Your task to perform on an android device: open app "ZOOM Cloud Meetings" (install if not already installed) Image 0: 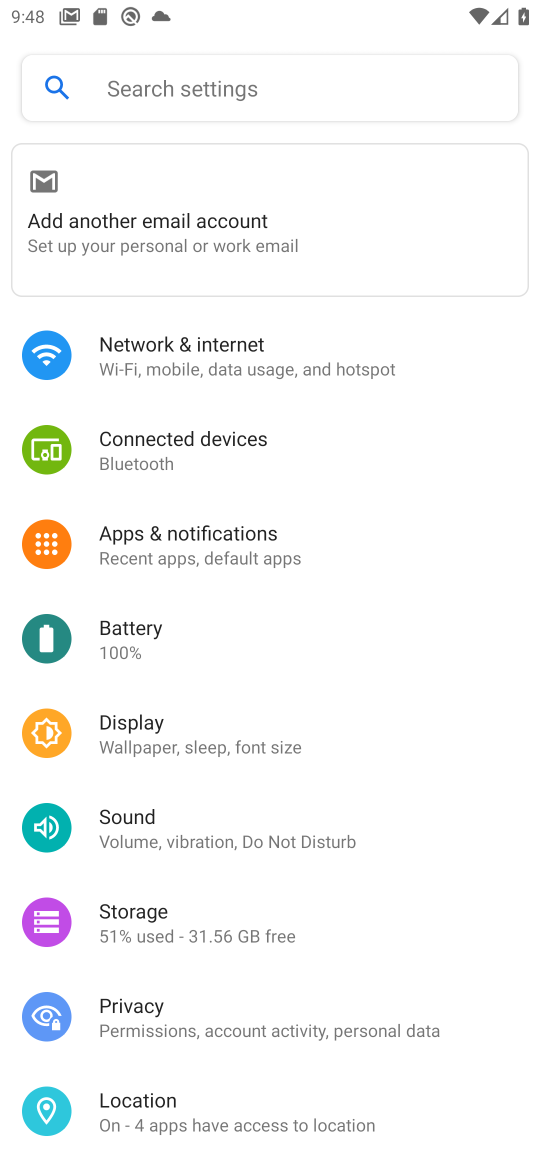
Step 0: press home button
Your task to perform on an android device: open app "ZOOM Cloud Meetings" (install if not already installed) Image 1: 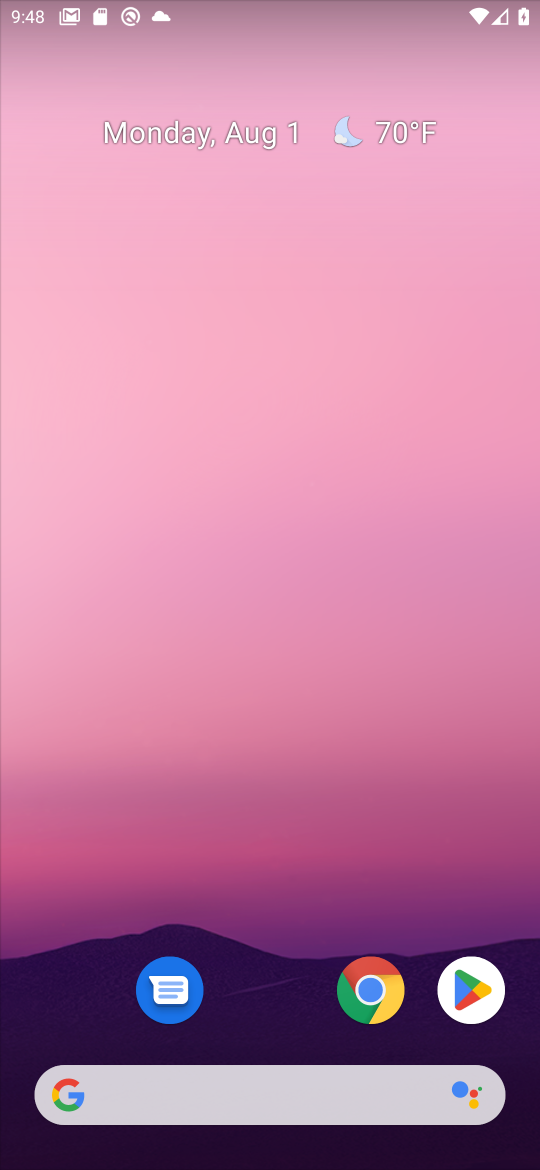
Step 1: click (477, 996)
Your task to perform on an android device: open app "ZOOM Cloud Meetings" (install if not already installed) Image 2: 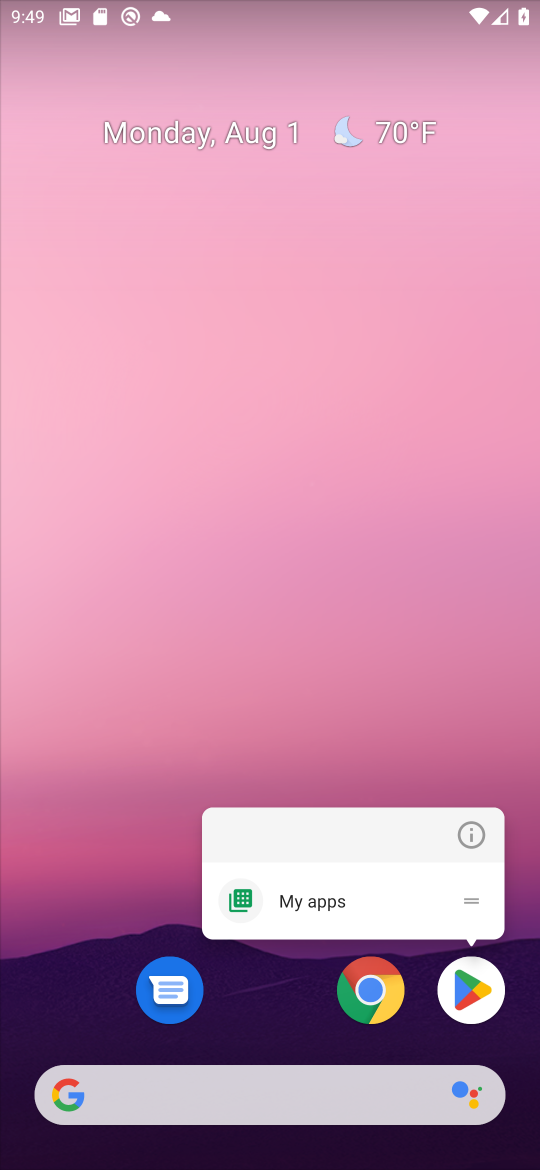
Step 2: click (476, 994)
Your task to perform on an android device: open app "ZOOM Cloud Meetings" (install if not already installed) Image 3: 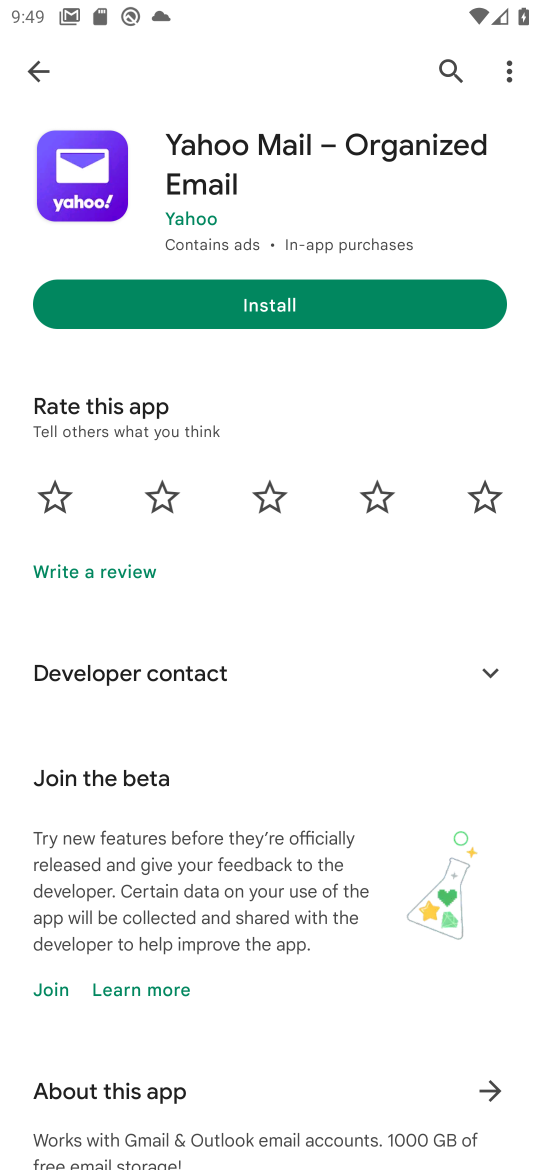
Step 3: click (452, 60)
Your task to perform on an android device: open app "ZOOM Cloud Meetings" (install if not already installed) Image 4: 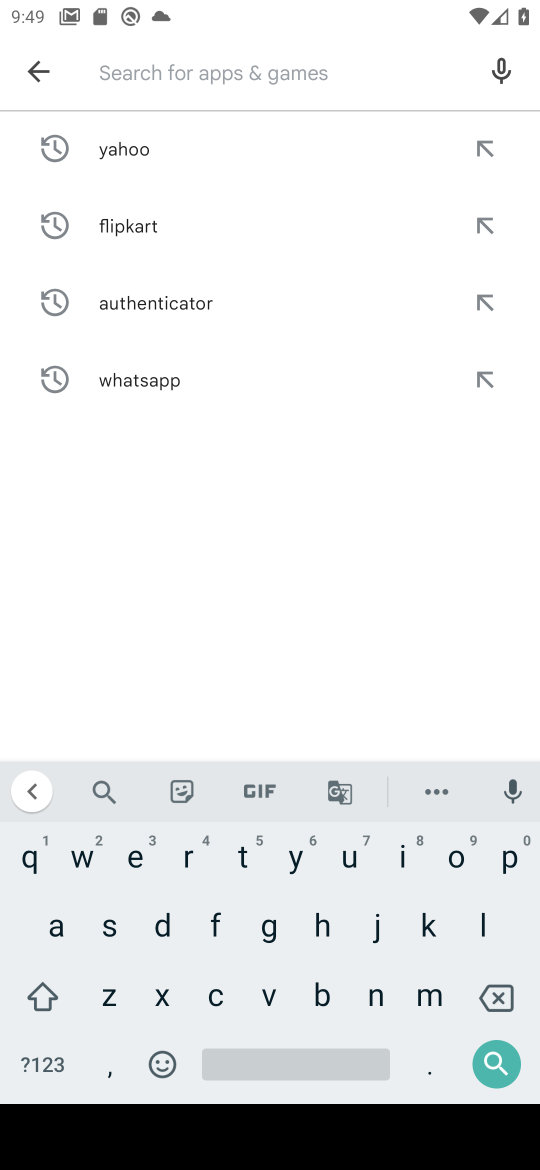
Step 4: click (117, 982)
Your task to perform on an android device: open app "ZOOM Cloud Meetings" (install if not already installed) Image 5: 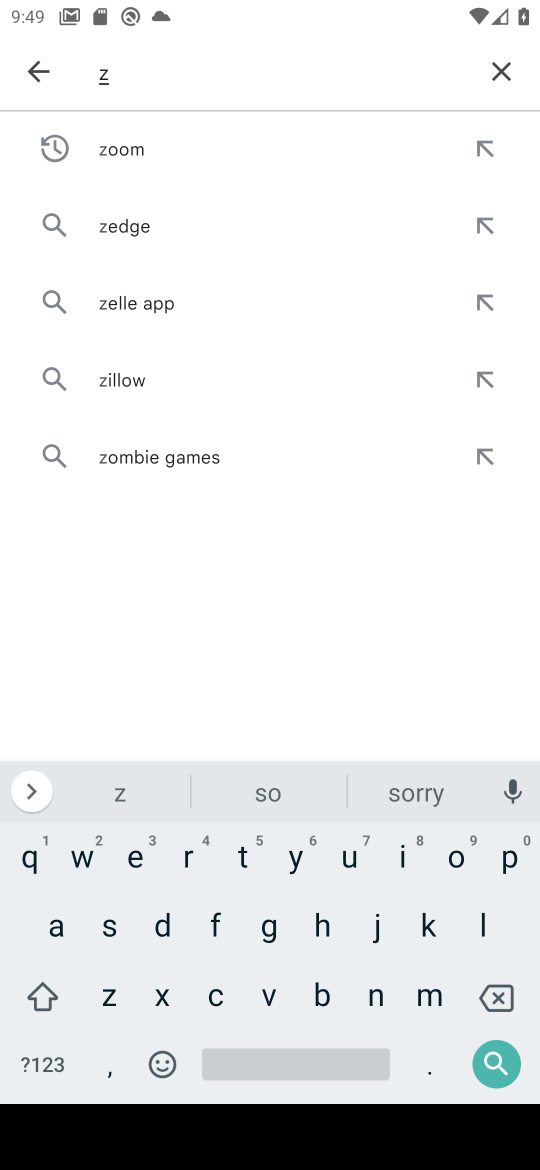
Step 5: click (185, 156)
Your task to perform on an android device: open app "ZOOM Cloud Meetings" (install if not already installed) Image 6: 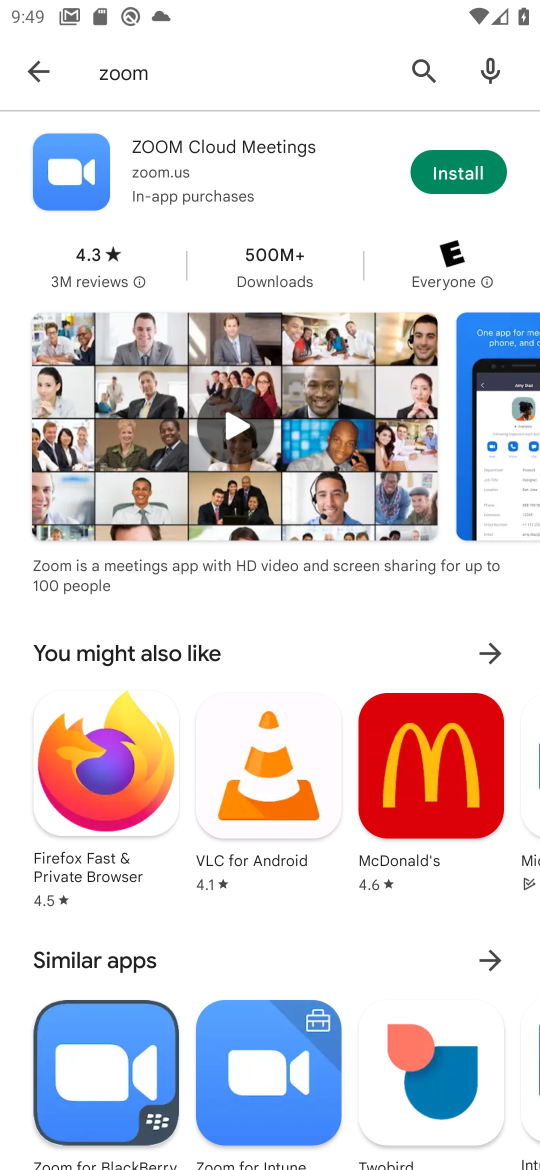
Step 6: click (450, 183)
Your task to perform on an android device: open app "ZOOM Cloud Meetings" (install if not already installed) Image 7: 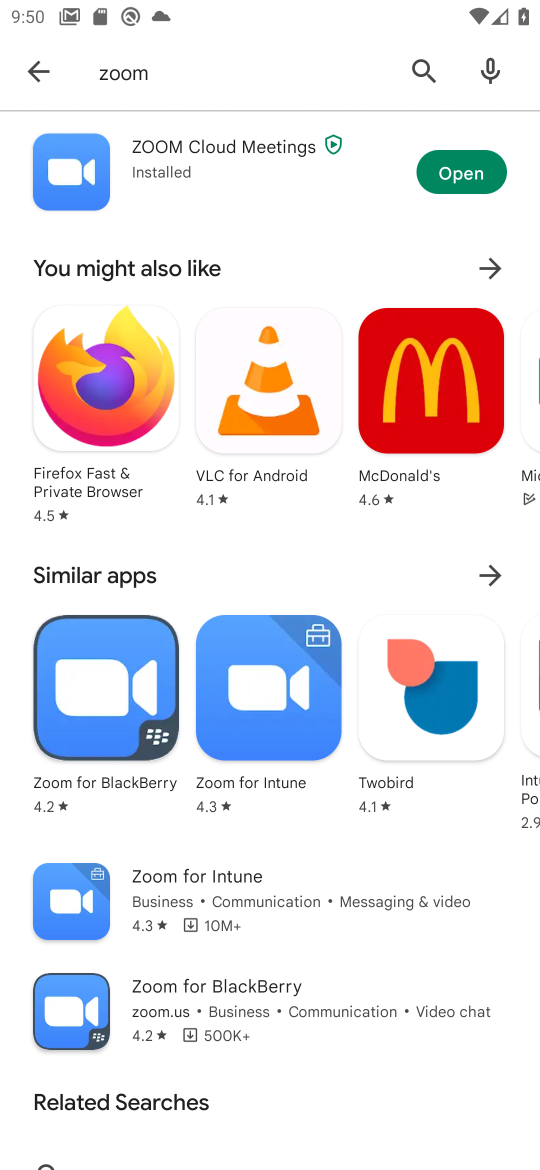
Step 7: click (450, 183)
Your task to perform on an android device: open app "ZOOM Cloud Meetings" (install if not already installed) Image 8: 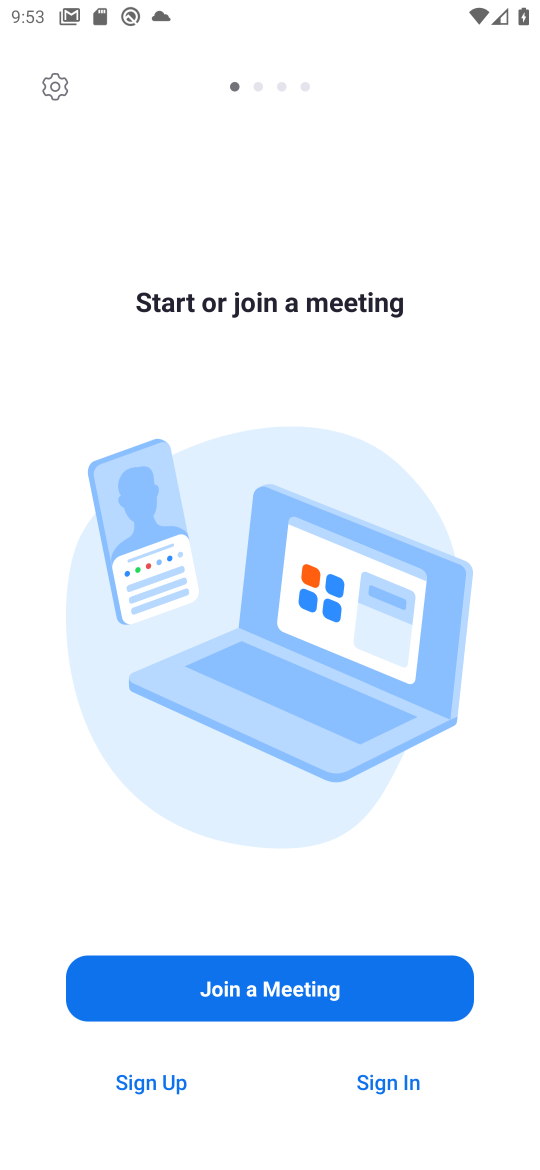
Step 8: task complete